Your task to perform on an android device: toggle show notifications on the lock screen Image 0: 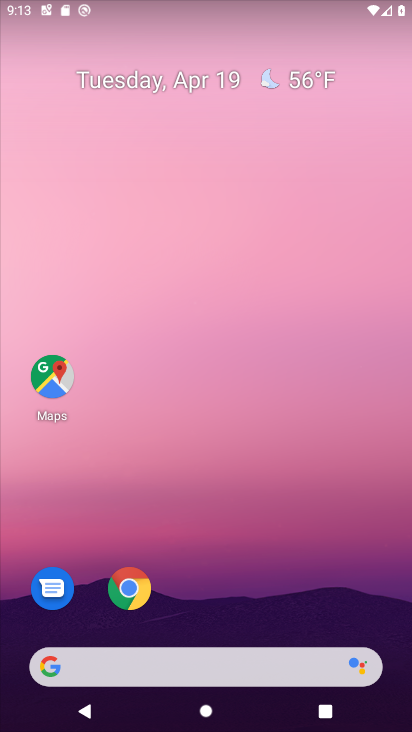
Step 0: drag from (219, 616) to (184, 82)
Your task to perform on an android device: toggle show notifications on the lock screen Image 1: 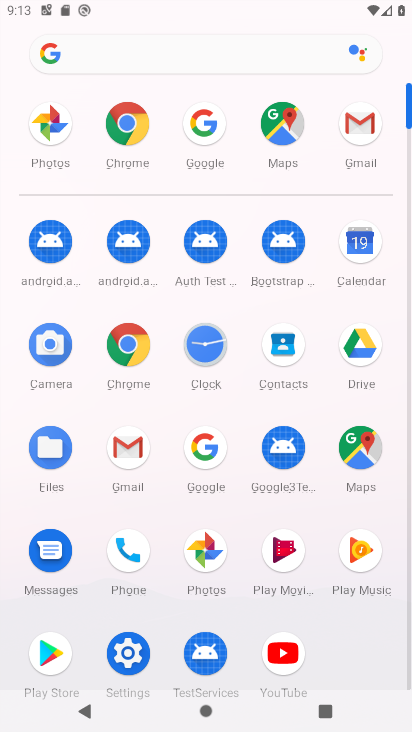
Step 1: click (126, 644)
Your task to perform on an android device: toggle show notifications on the lock screen Image 2: 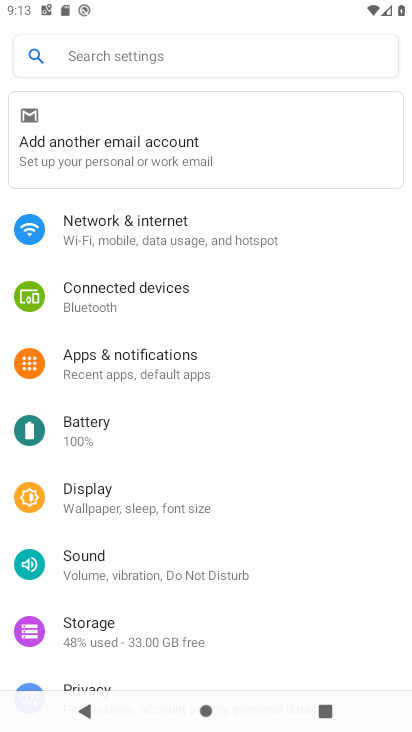
Step 2: click (214, 361)
Your task to perform on an android device: toggle show notifications on the lock screen Image 3: 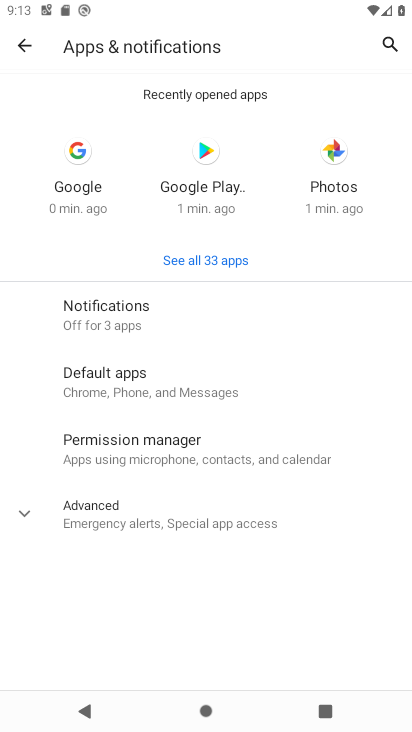
Step 3: click (158, 314)
Your task to perform on an android device: toggle show notifications on the lock screen Image 4: 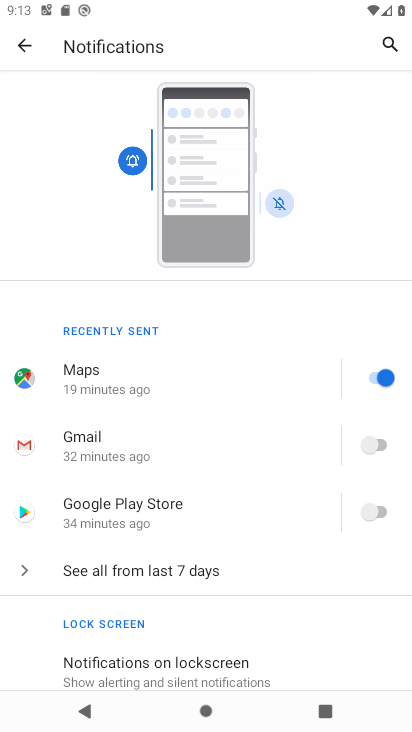
Step 4: click (261, 662)
Your task to perform on an android device: toggle show notifications on the lock screen Image 5: 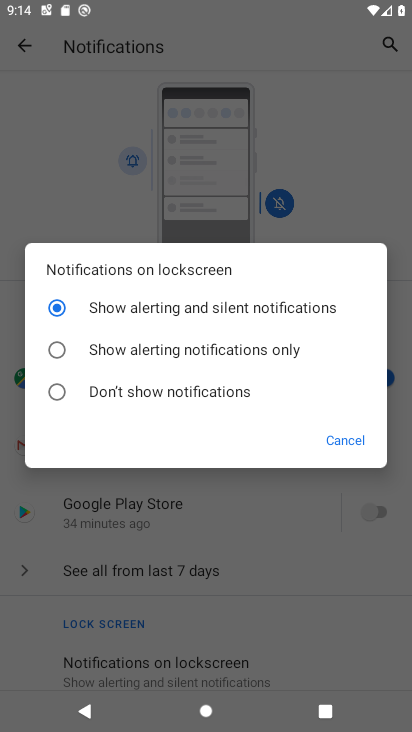
Step 5: click (55, 349)
Your task to perform on an android device: toggle show notifications on the lock screen Image 6: 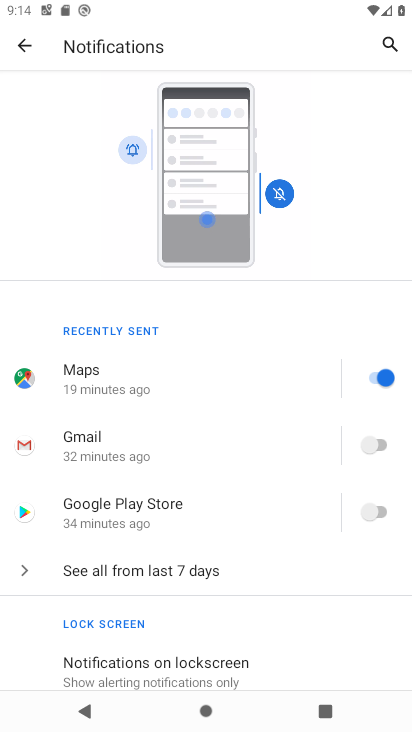
Step 6: task complete